Your task to perform on an android device: open device folders in google photos Image 0: 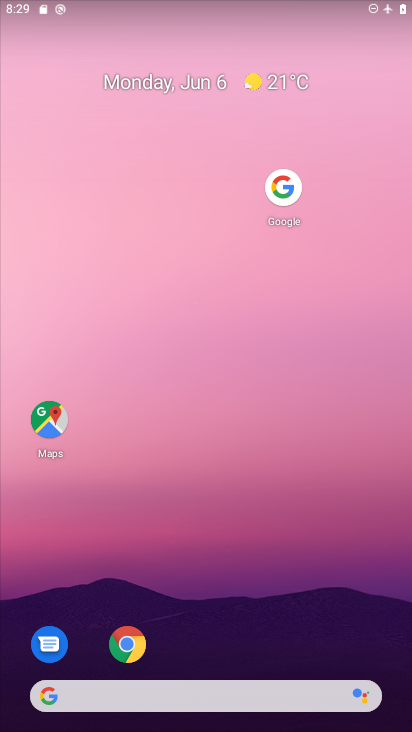
Step 0: drag from (215, 675) to (227, 289)
Your task to perform on an android device: open device folders in google photos Image 1: 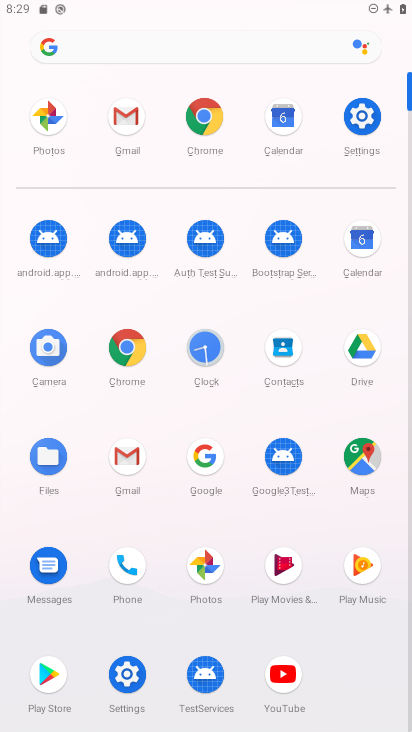
Step 1: click (213, 572)
Your task to perform on an android device: open device folders in google photos Image 2: 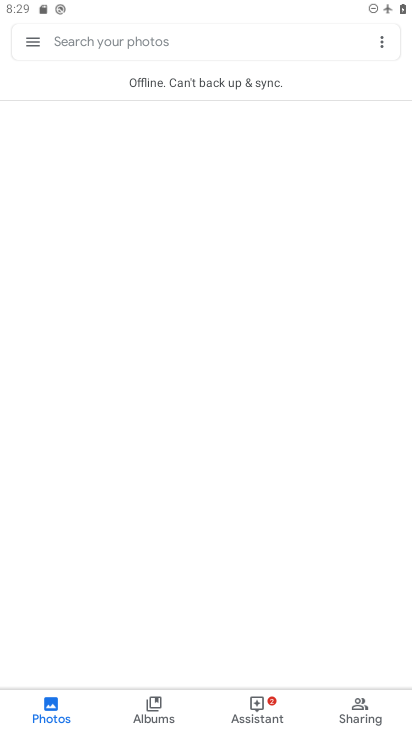
Step 2: click (38, 35)
Your task to perform on an android device: open device folders in google photos Image 3: 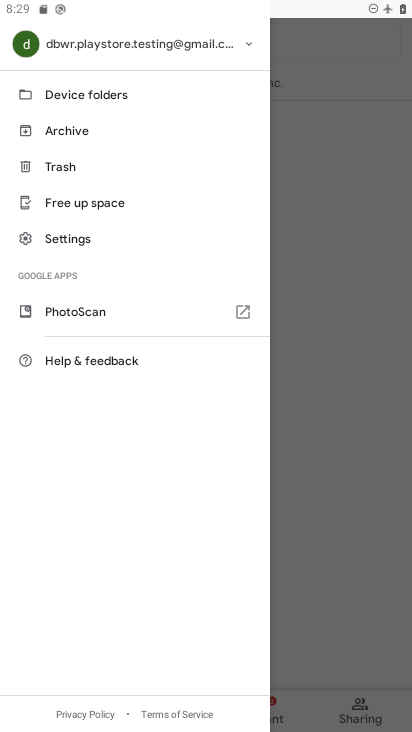
Step 3: click (61, 101)
Your task to perform on an android device: open device folders in google photos Image 4: 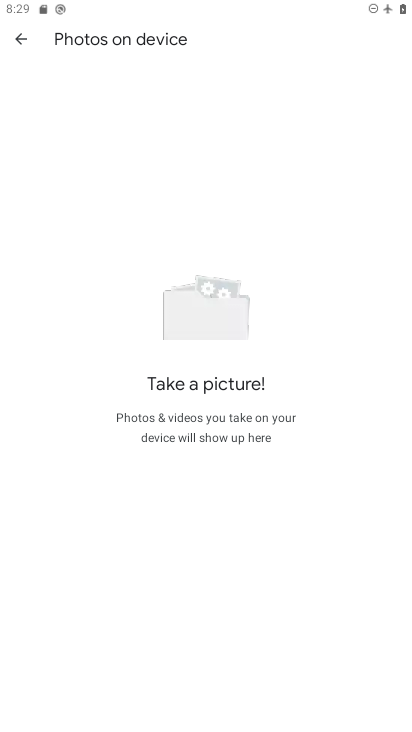
Step 4: task complete